Your task to perform on an android device: Is it going to rain tomorrow? Image 0: 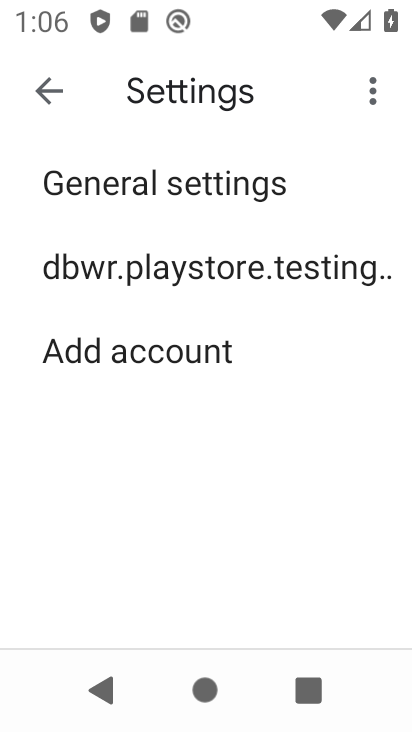
Step 0: press home button
Your task to perform on an android device: Is it going to rain tomorrow? Image 1: 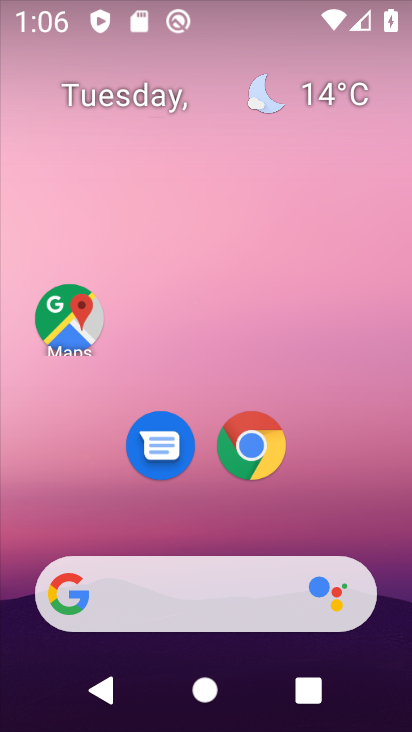
Step 1: drag from (376, 527) to (384, 129)
Your task to perform on an android device: Is it going to rain tomorrow? Image 2: 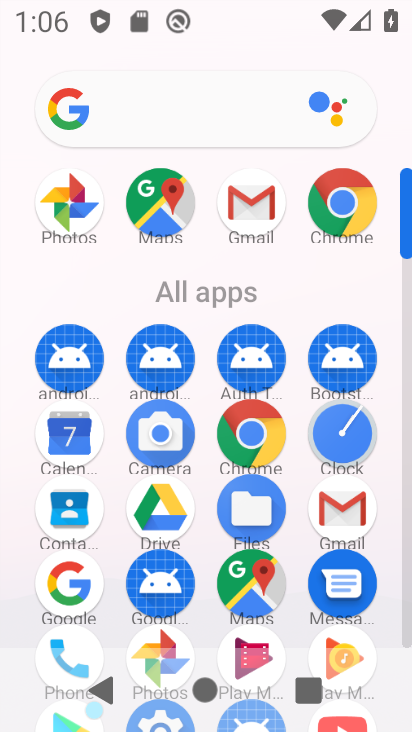
Step 2: click (211, 121)
Your task to perform on an android device: Is it going to rain tomorrow? Image 3: 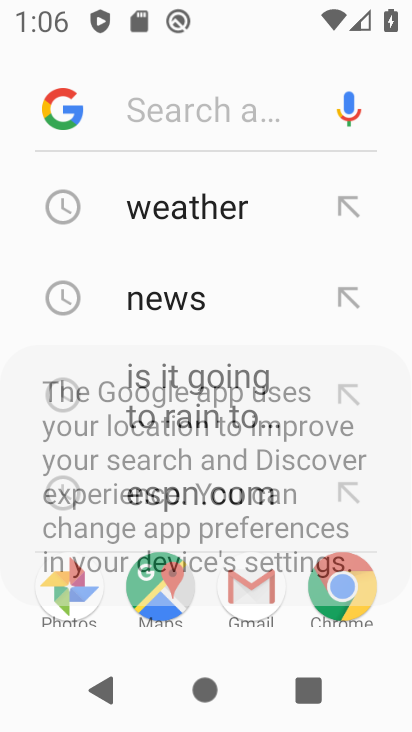
Step 3: click (166, 195)
Your task to perform on an android device: Is it going to rain tomorrow? Image 4: 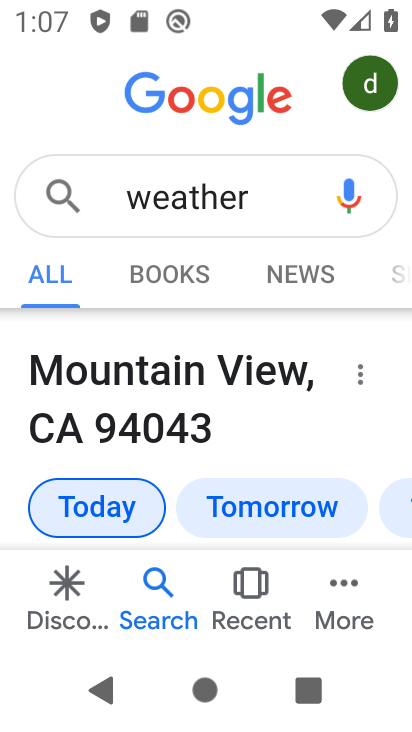
Step 4: click (289, 503)
Your task to perform on an android device: Is it going to rain tomorrow? Image 5: 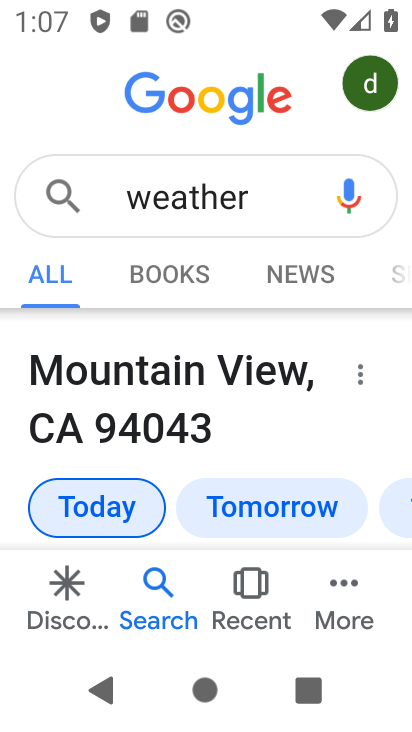
Step 5: drag from (235, 419) to (249, 155)
Your task to perform on an android device: Is it going to rain tomorrow? Image 6: 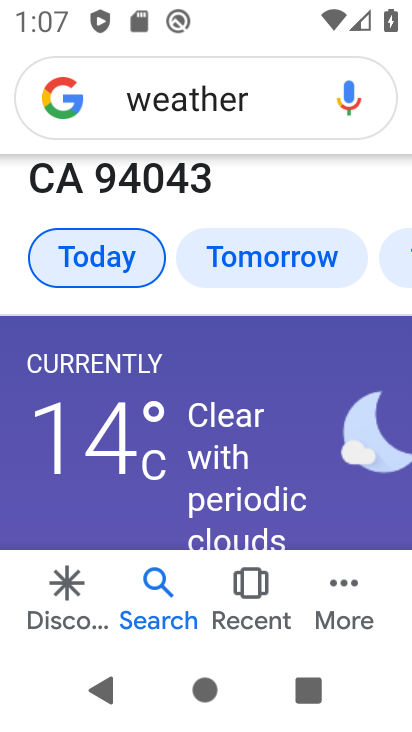
Step 6: click (292, 258)
Your task to perform on an android device: Is it going to rain tomorrow? Image 7: 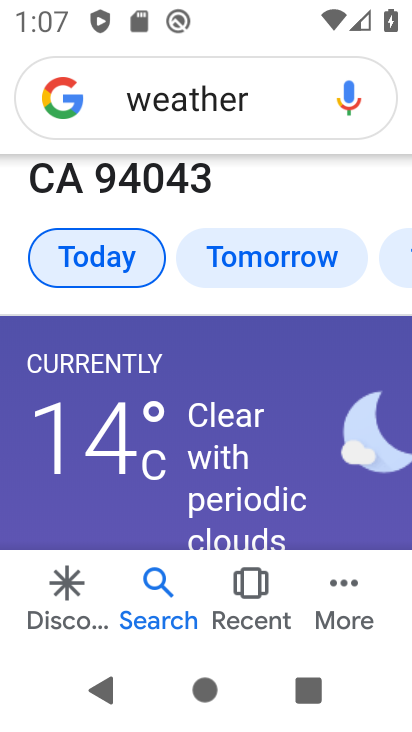
Step 7: click (301, 263)
Your task to perform on an android device: Is it going to rain tomorrow? Image 8: 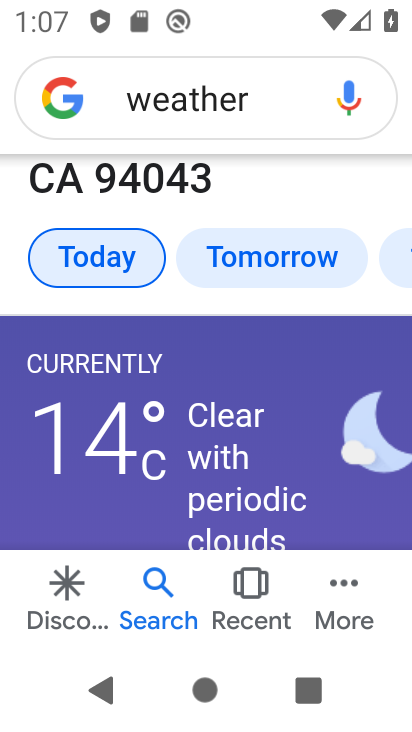
Step 8: task complete